Your task to perform on an android device: turn off notifications in google photos Image 0: 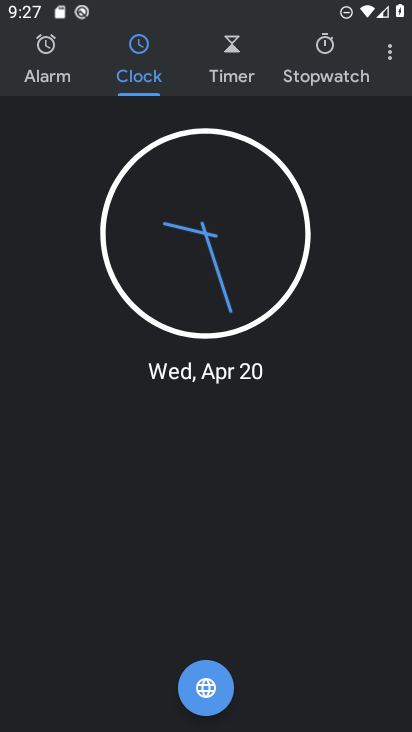
Step 0: press home button
Your task to perform on an android device: turn off notifications in google photos Image 1: 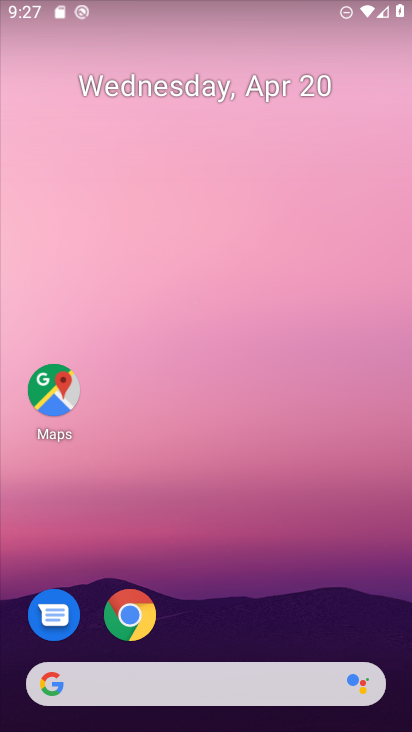
Step 1: drag from (264, 608) to (257, 52)
Your task to perform on an android device: turn off notifications in google photos Image 2: 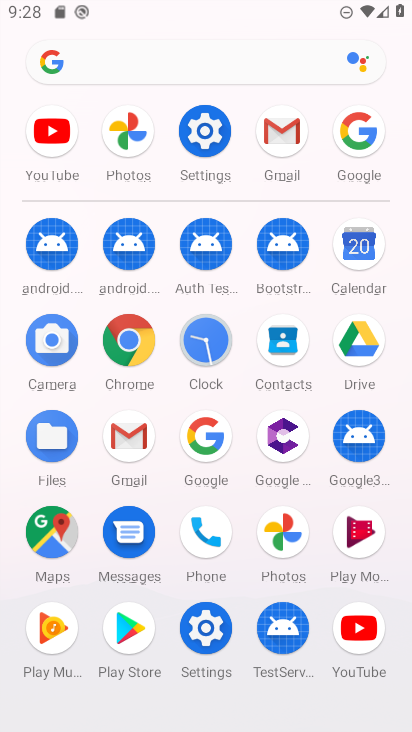
Step 2: click (129, 131)
Your task to perform on an android device: turn off notifications in google photos Image 3: 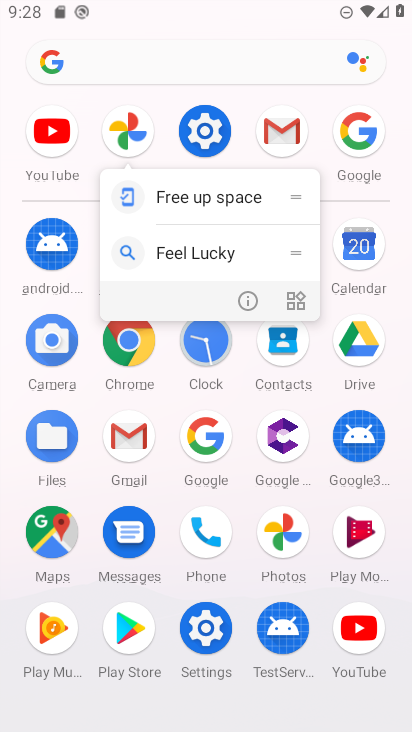
Step 3: click (129, 131)
Your task to perform on an android device: turn off notifications in google photos Image 4: 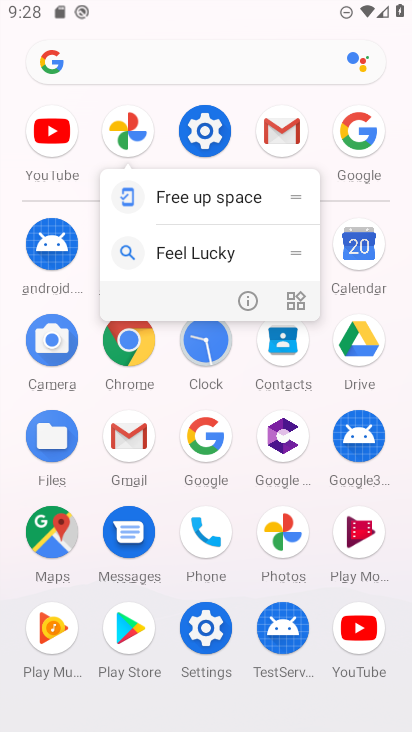
Step 4: click (129, 131)
Your task to perform on an android device: turn off notifications in google photos Image 5: 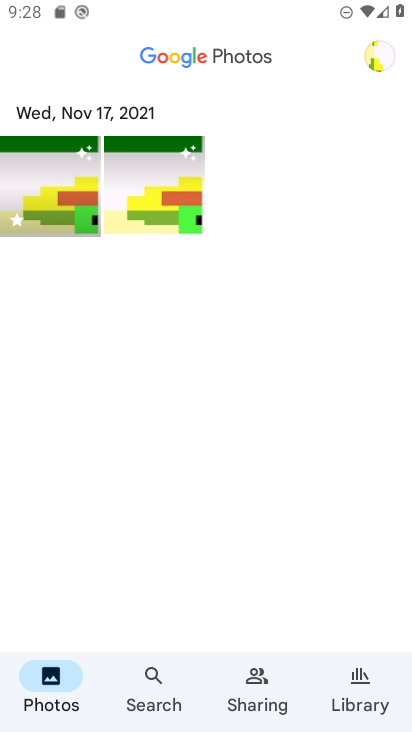
Step 5: click (382, 56)
Your task to perform on an android device: turn off notifications in google photos Image 6: 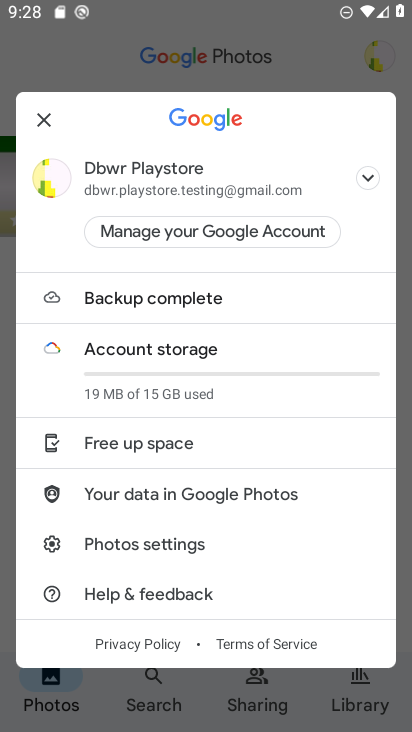
Step 6: click (146, 550)
Your task to perform on an android device: turn off notifications in google photos Image 7: 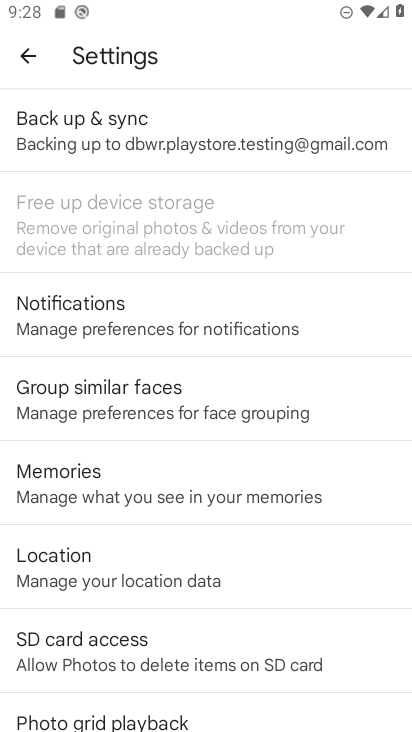
Step 7: click (187, 327)
Your task to perform on an android device: turn off notifications in google photos Image 8: 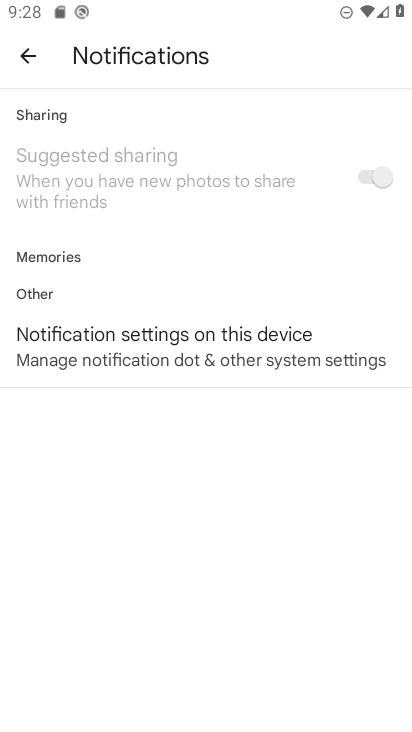
Step 8: click (184, 344)
Your task to perform on an android device: turn off notifications in google photos Image 9: 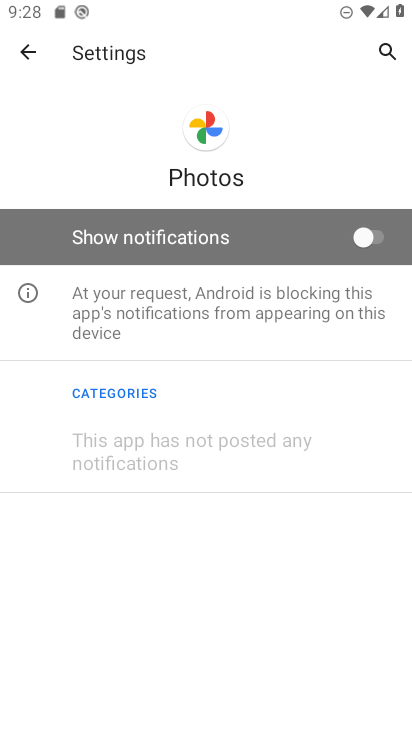
Step 9: task complete